Your task to perform on an android device: Turn off the flashlight Image 0: 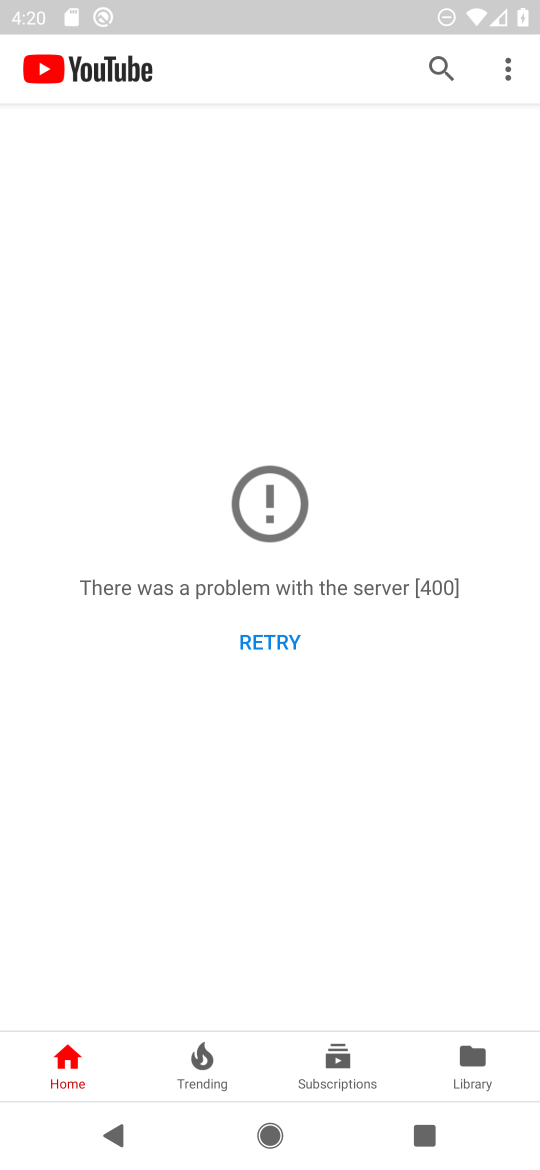
Step 0: press back button
Your task to perform on an android device: Turn off the flashlight Image 1: 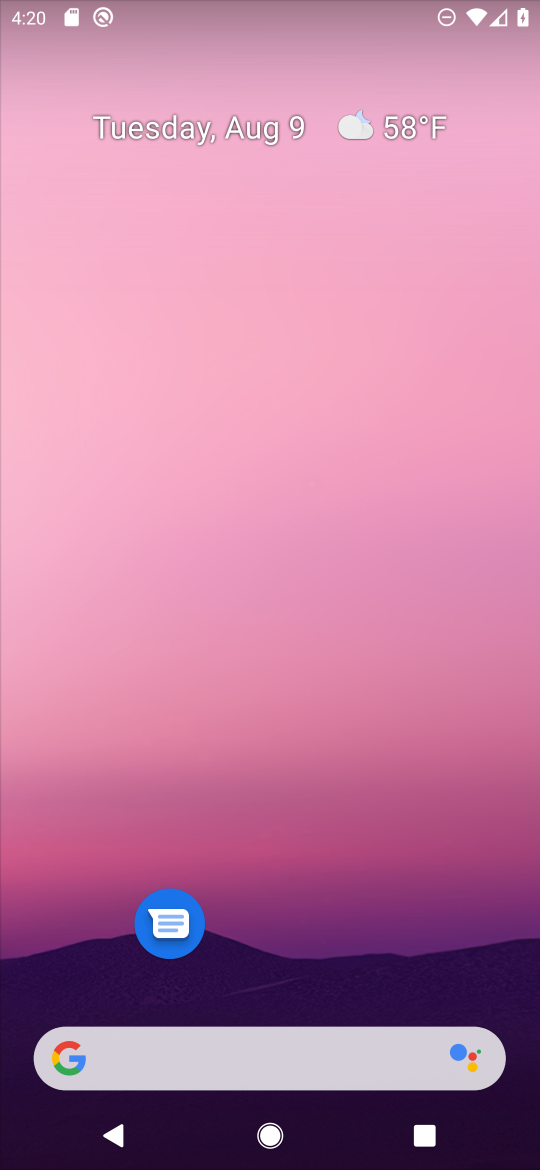
Step 1: drag from (346, 931) to (425, 54)
Your task to perform on an android device: Turn off the flashlight Image 2: 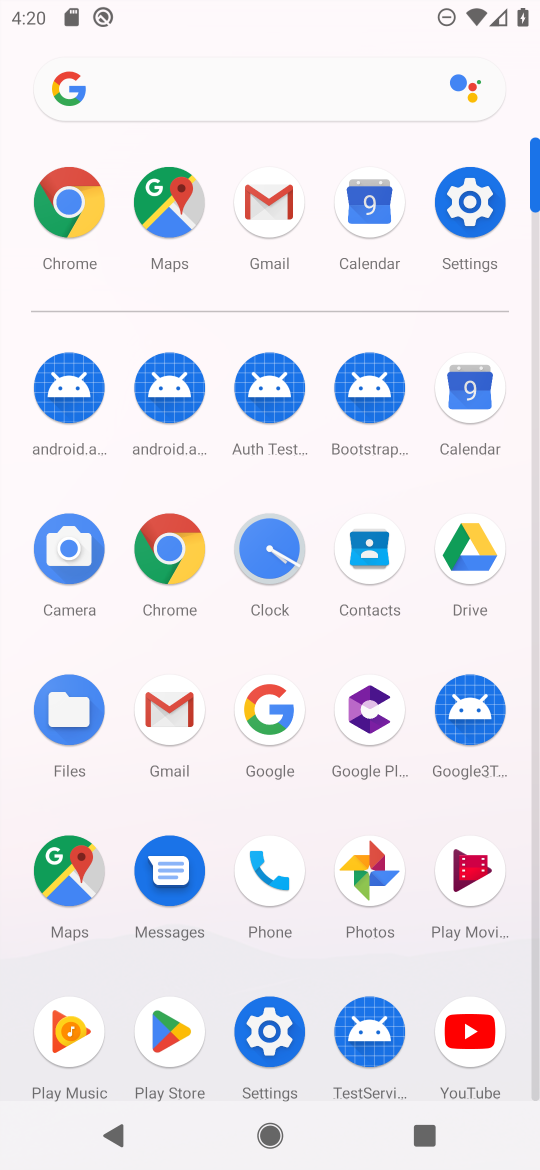
Step 2: click (475, 213)
Your task to perform on an android device: Turn off the flashlight Image 3: 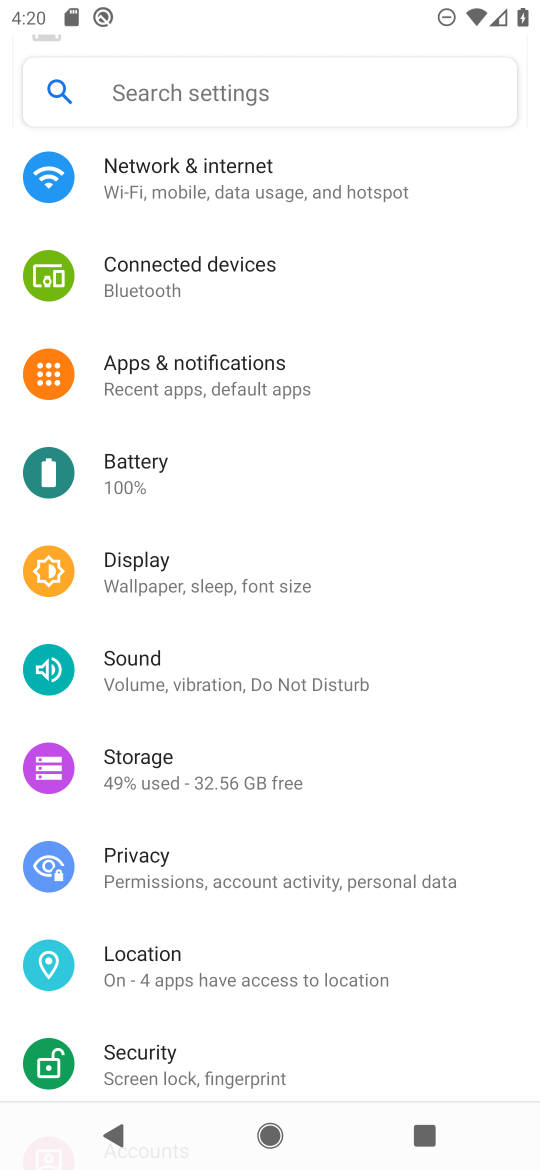
Step 3: click (193, 93)
Your task to perform on an android device: Turn off the flashlight Image 4: 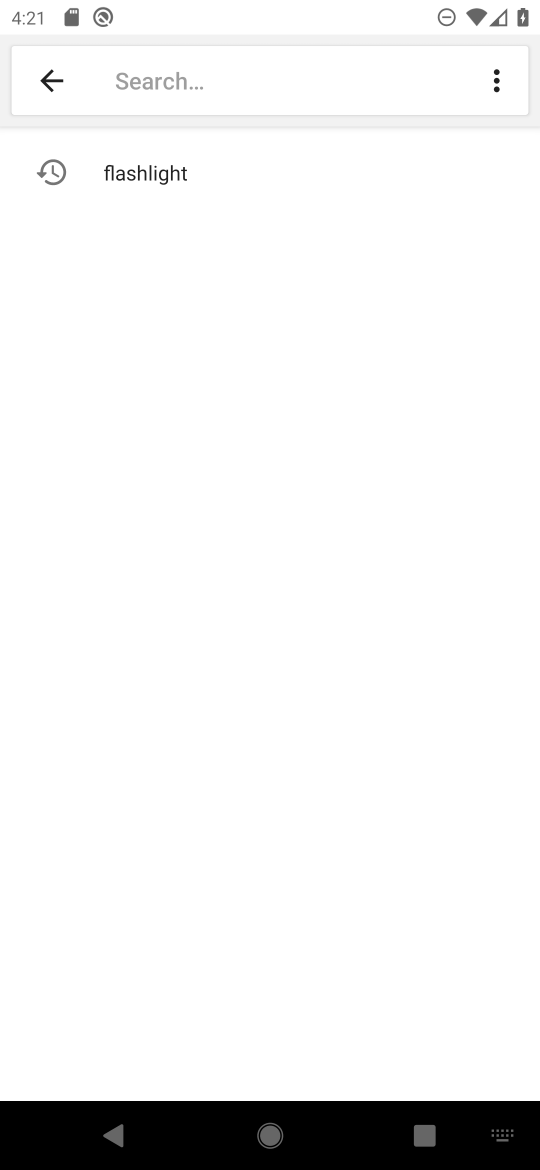
Step 4: type "flashlight"
Your task to perform on an android device: Turn off the flashlight Image 5: 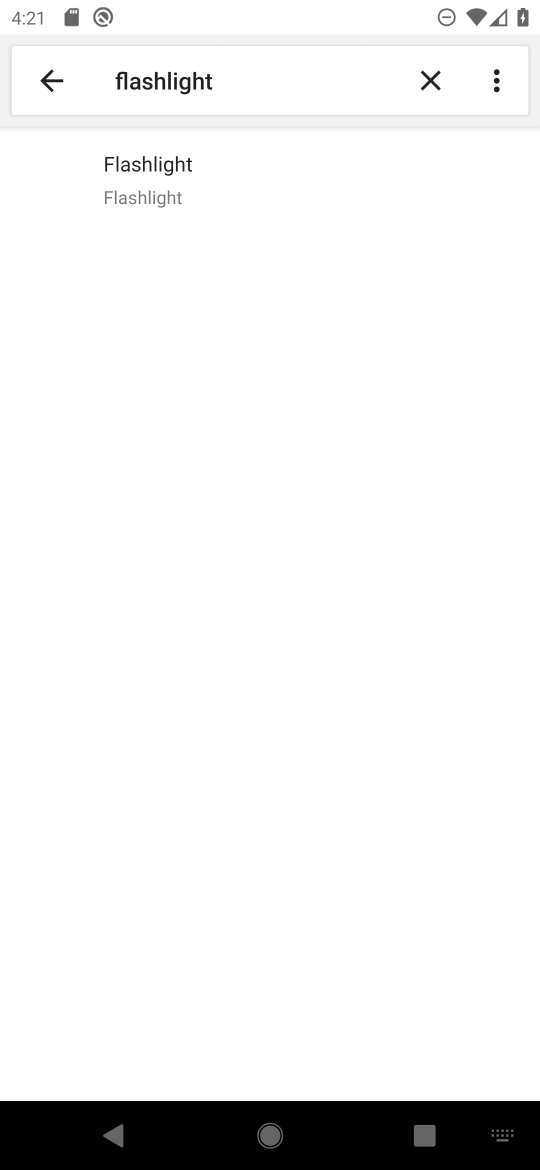
Step 5: click (131, 178)
Your task to perform on an android device: Turn off the flashlight Image 6: 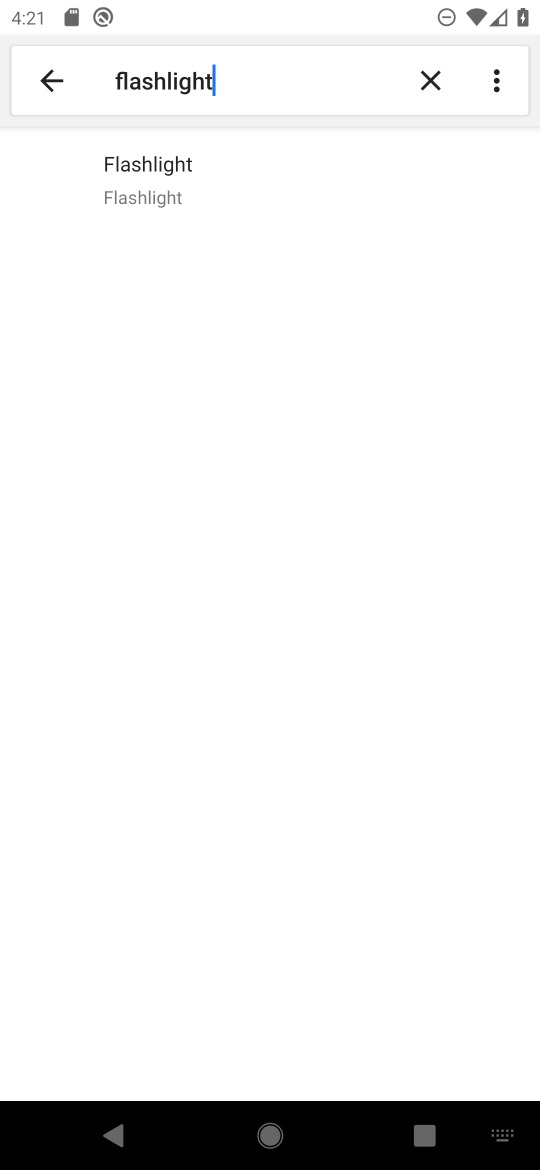
Step 6: click (160, 209)
Your task to perform on an android device: Turn off the flashlight Image 7: 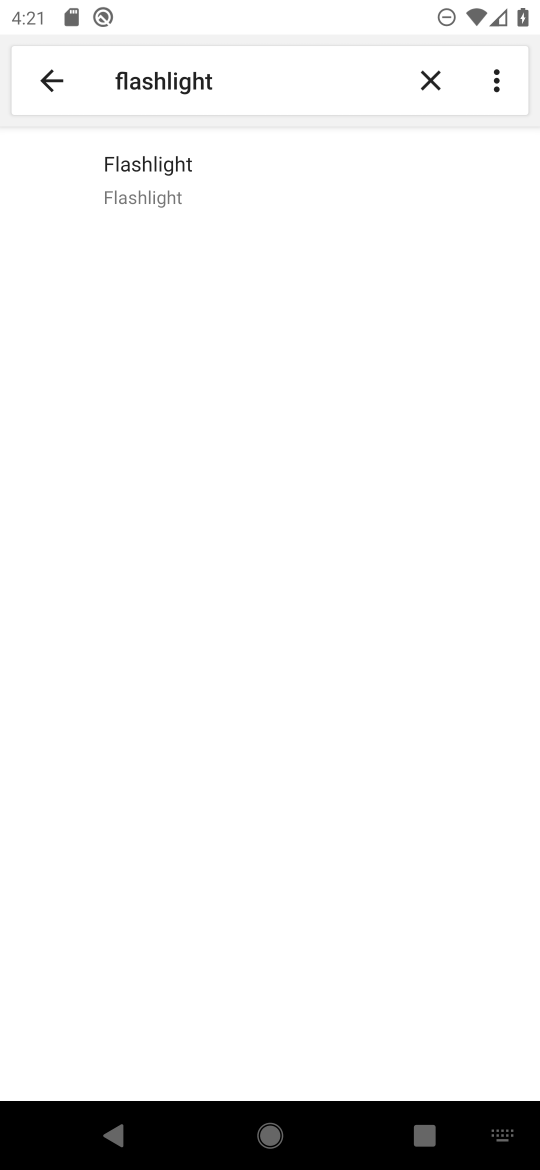
Step 7: task complete